Your task to perform on an android device: Open Reddit.com Image 0: 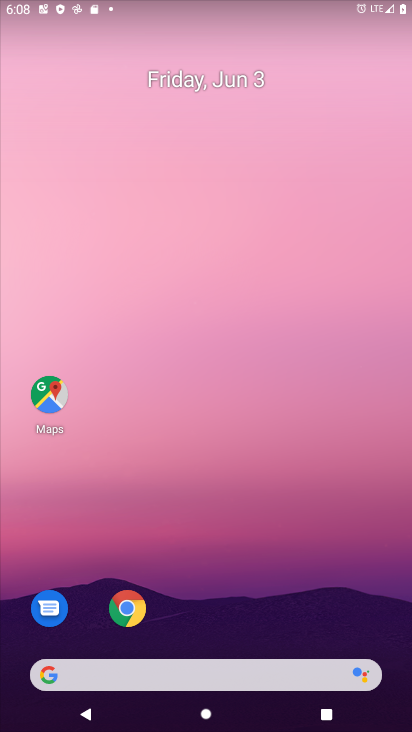
Step 0: click (125, 606)
Your task to perform on an android device: Open Reddit.com Image 1: 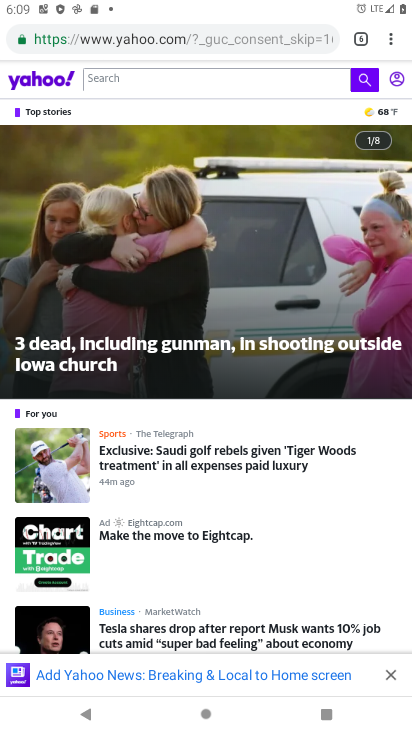
Step 1: click (360, 40)
Your task to perform on an android device: Open Reddit.com Image 2: 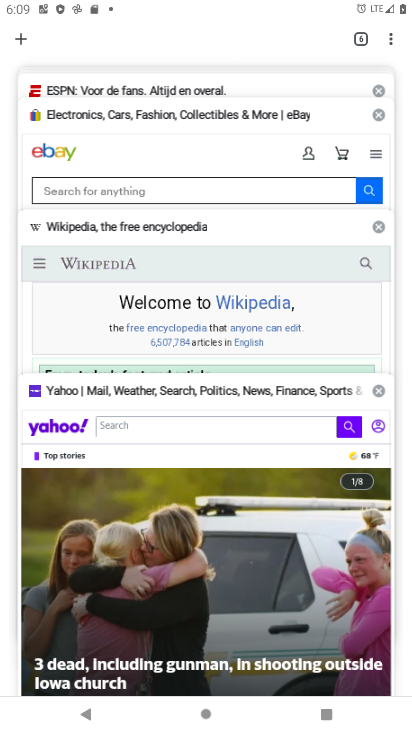
Step 2: drag from (133, 117) to (158, 551)
Your task to perform on an android device: Open Reddit.com Image 3: 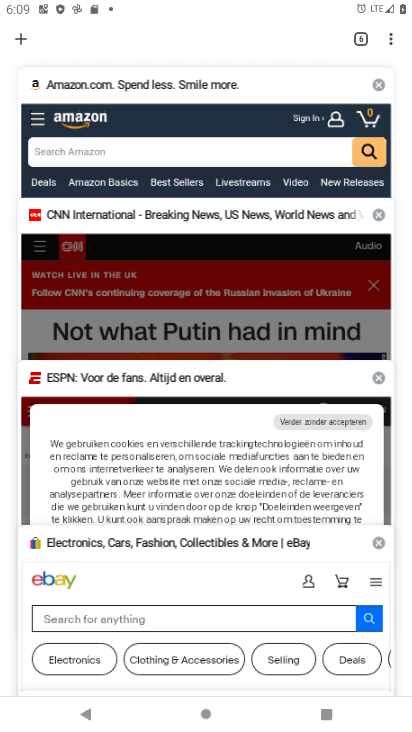
Step 3: drag from (106, 81) to (129, 514)
Your task to perform on an android device: Open Reddit.com Image 4: 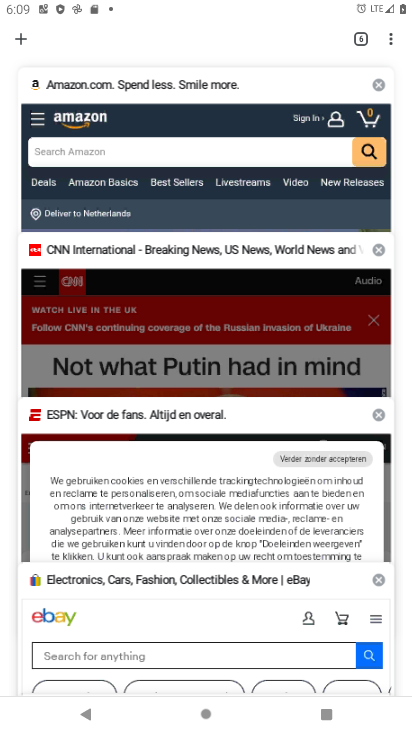
Step 4: click (19, 30)
Your task to perform on an android device: Open Reddit.com Image 5: 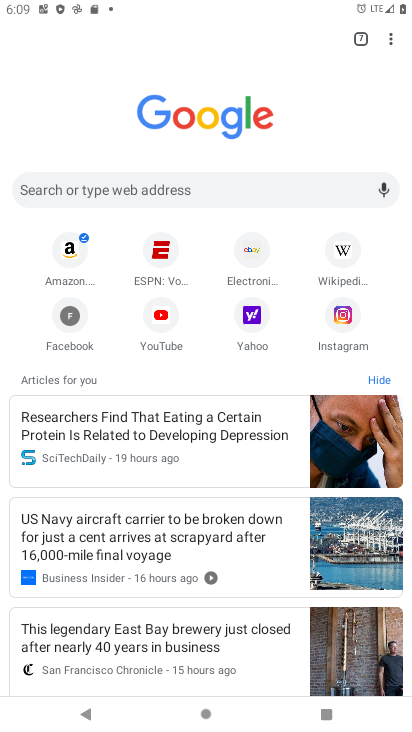
Step 5: click (89, 193)
Your task to perform on an android device: Open Reddit.com Image 6: 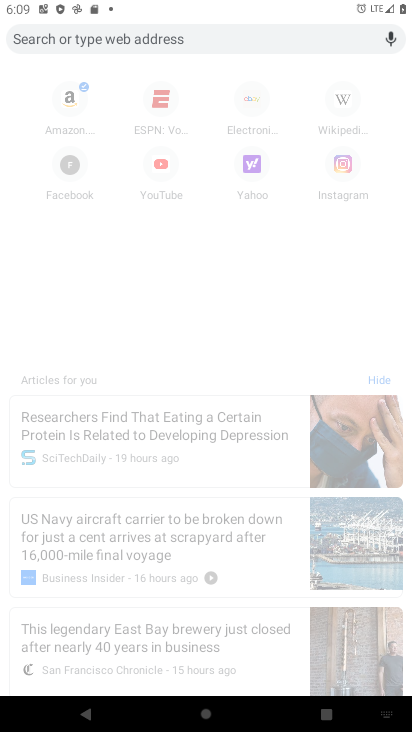
Step 6: type "Reddit.com"
Your task to perform on an android device: Open Reddit.com Image 7: 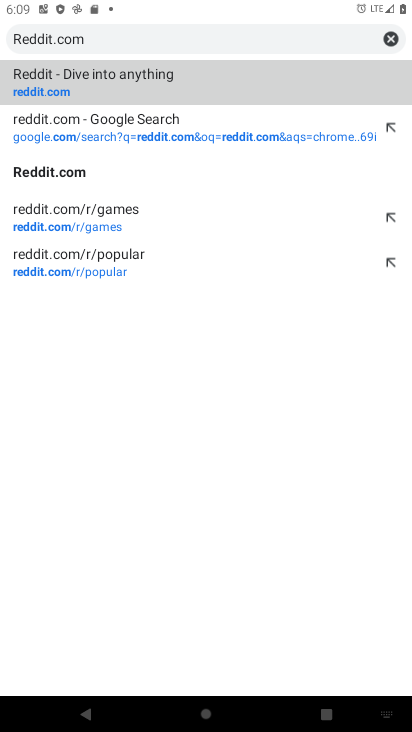
Step 7: click (68, 111)
Your task to perform on an android device: Open Reddit.com Image 8: 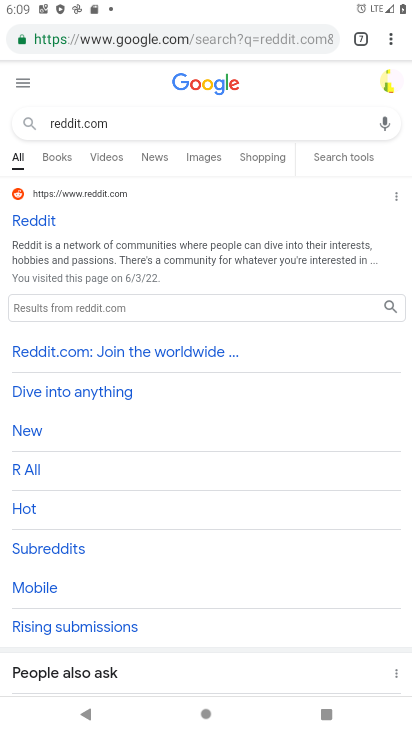
Step 8: click (88, 201)
Your task to perform on an android device: Open Reddit.com Image 9: 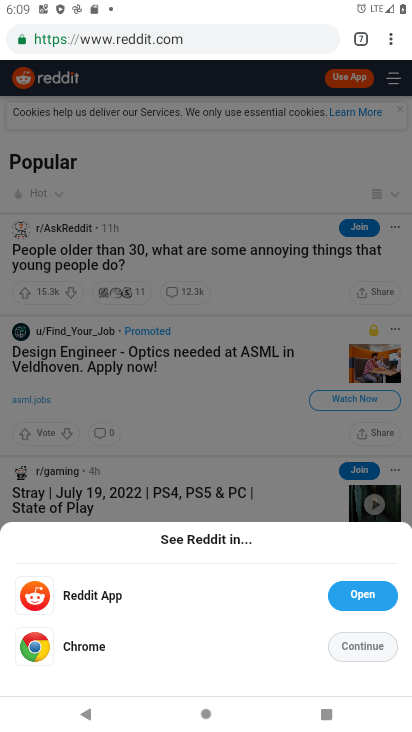
Step 9: click (364, 585)
Your task to perform on an android device: Open Reddit.com Image 10: 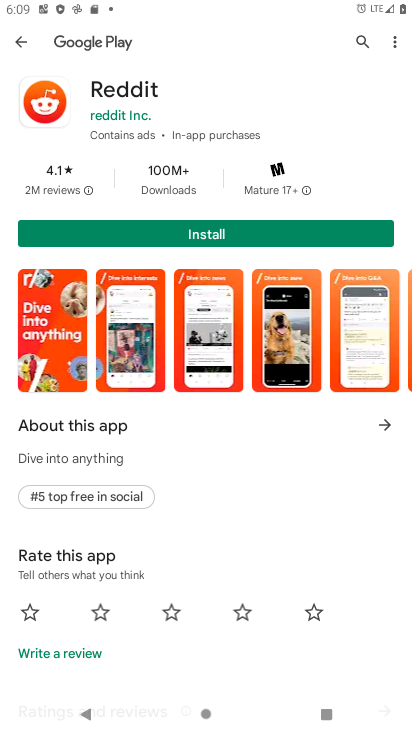
Step 10: task complete